Your task to perform on an android device: toggle airplane mode Image 0: 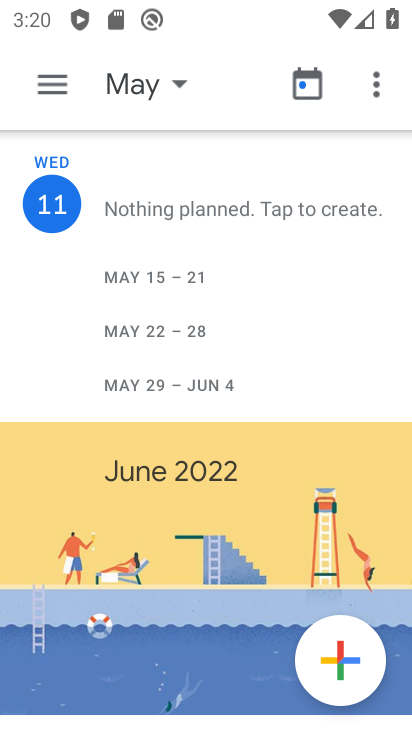
Step 0: press back button
Your task to perform on an android device: toggle airplane mode Image 1: 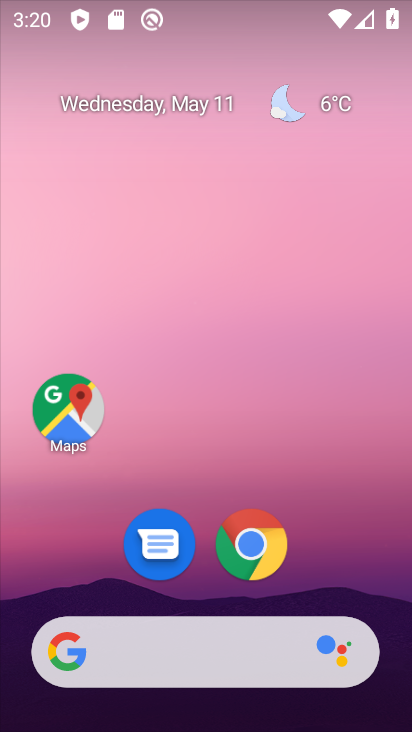
Step 1: drag from (87, 590) to (213, 135)
Your task to perform on an android device: toggle airplane mode Image 2: 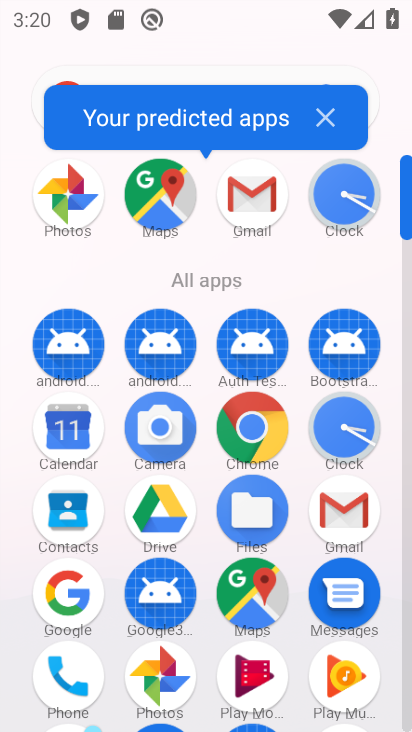
Step 2: drag from (138, 669) to (214, 395)
Your task to perform on an android device: toggle airplane mode Image 3: 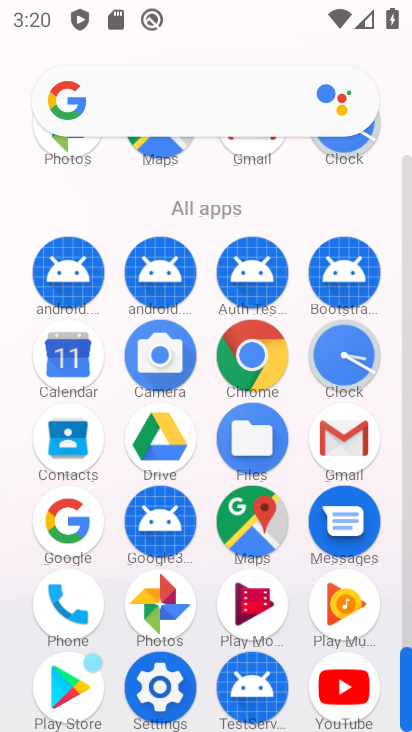
Step 3: click (174, 694)
Your task to perform on an android device: toggle airplane mode Image 4: 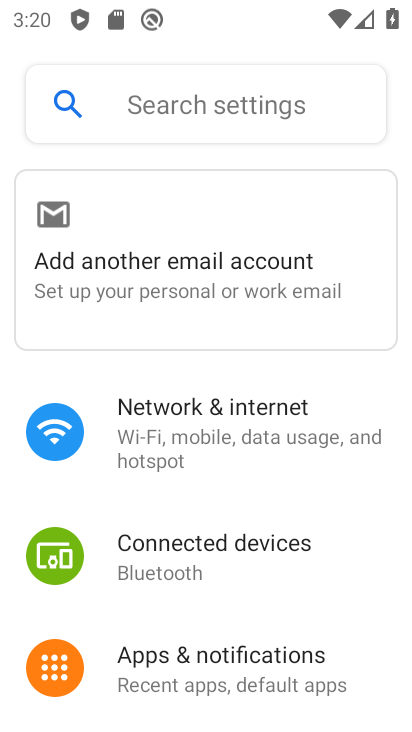
Step 4: click (180, 452)
Your task to perform on an android device: toggle airplane mode Image 5: 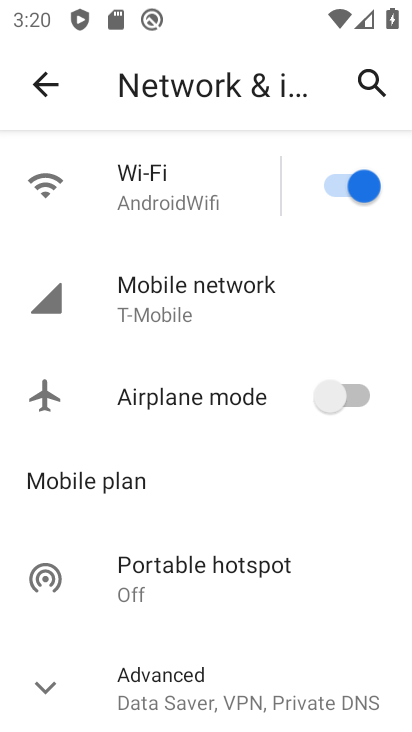
Step 5: click (362, 392)
Your task to perform on an android device: toggle airplane mode Image 6: 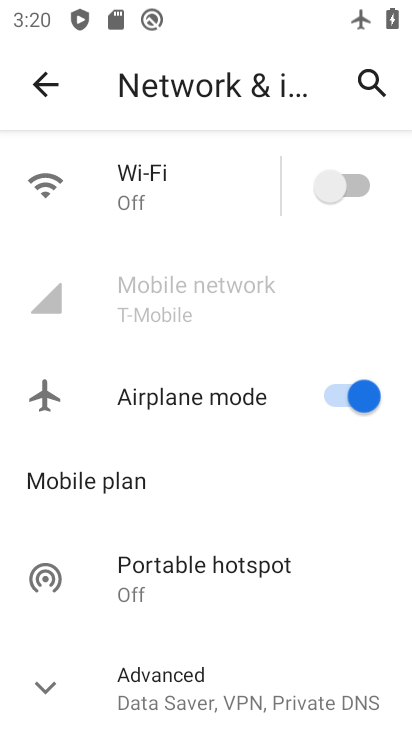
Step 6: task complete